Your task to perform on an android device: turn off priority inbox in the gmail app Image 0: 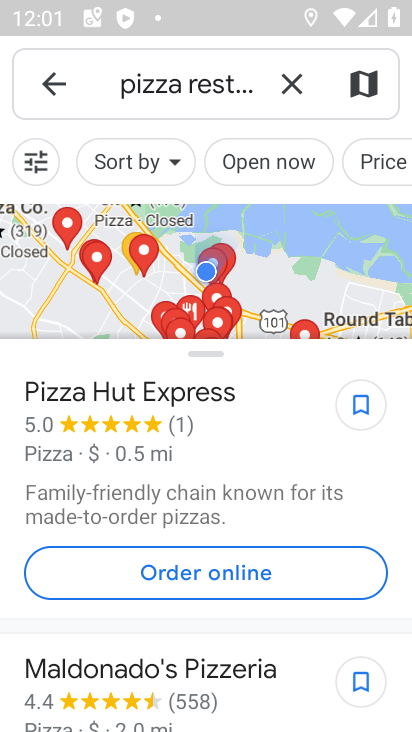
Step 0: press home button
Your task to perform on an android device: turn off priority inbox in the gmail app Image 1: 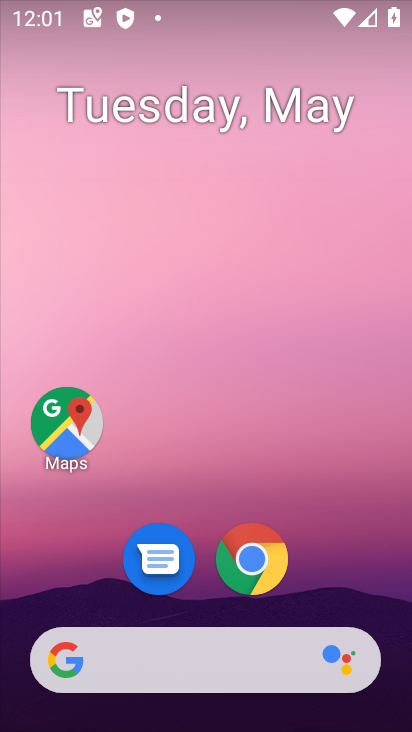
Step 1: drag from (359, 588) to (285, 88)
Your task to perform on an android device: turn off priority inbox in the gmail app Image 2: 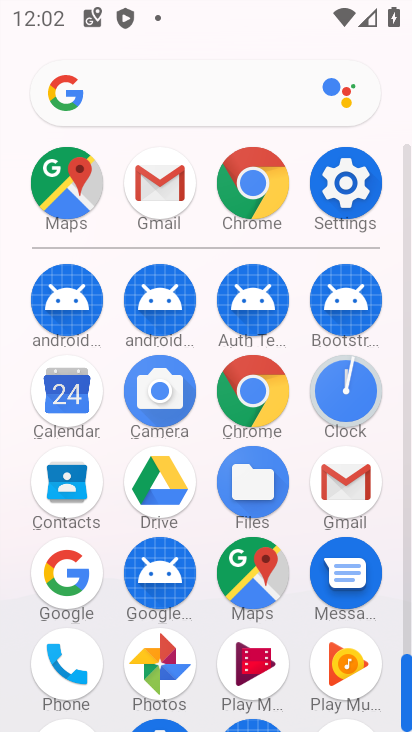
Step 2: click (170, 216)
Your task to perform on an android device: turn off priority inbox in the gmail app Image 3: 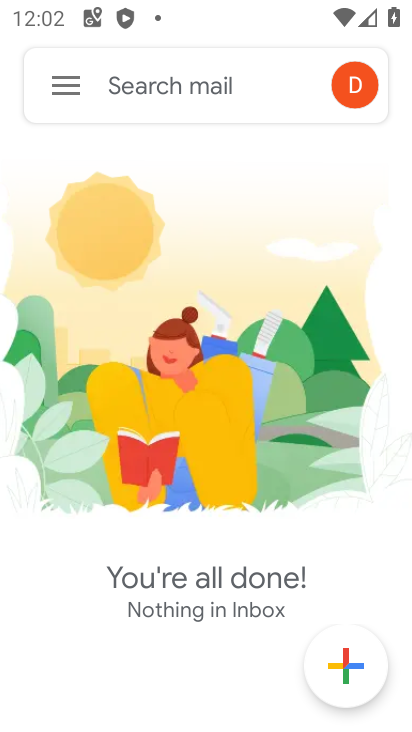
Step 3: click (63, 78)
Your task to perform on an android device: turn off priority inbox in the gmail app Image 4: 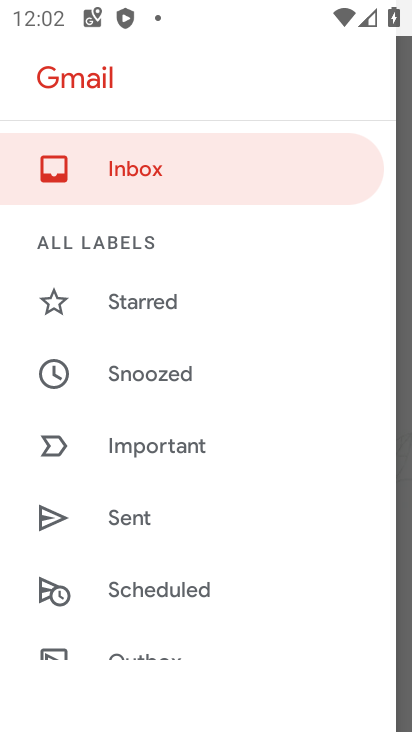
Step 4: drag from (170, 640) to (162, 243)
Your task to perform on an android device: turn off priority inbox in the gmail app Image 5: 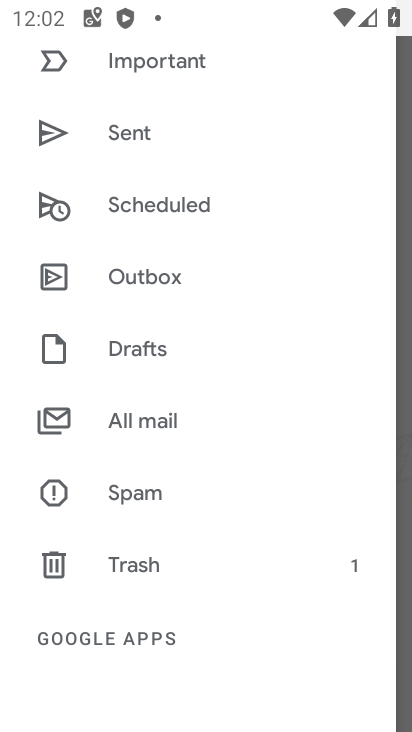
Step 5: drag from (175, 559) to (163, 308)
Your task to perform on an android device: turn off priority inbox in the gmail app Image 6: 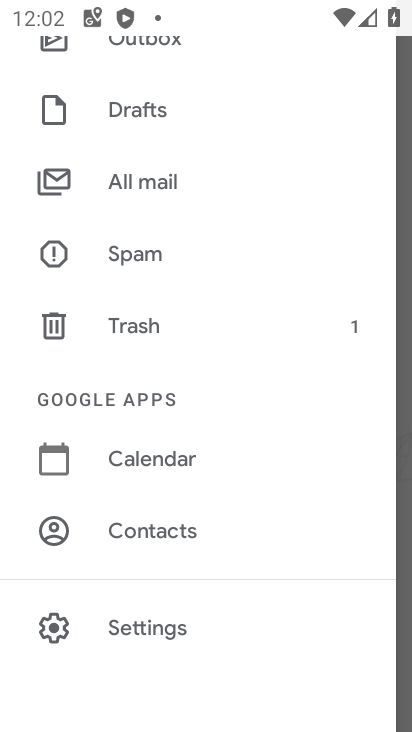
Step 6: click (162, 609)
Your task to perform on an android device: turn off priority inbox in the gmail app Image 7: 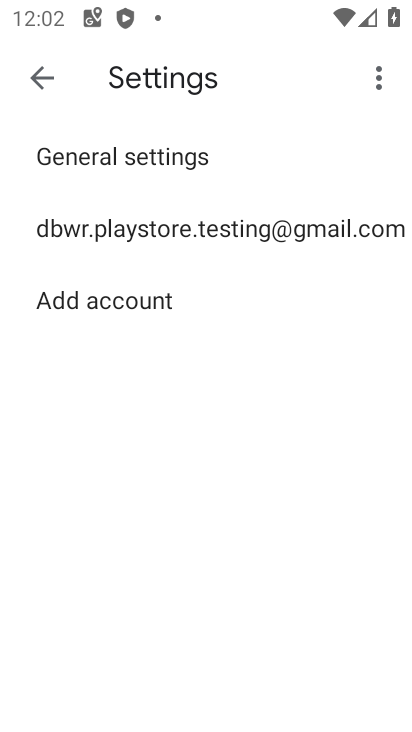
Step 7: click (261, 225)
Your task to perform on an android device: turn off priority inbox in the gmail app Image 8: 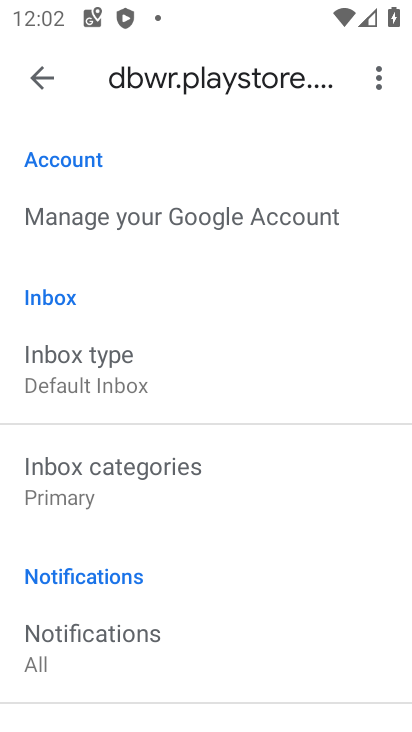
Step 8: click (194, 367)
Your task to perform on an android device: turn off priority inbox in the gmail app Image 9: 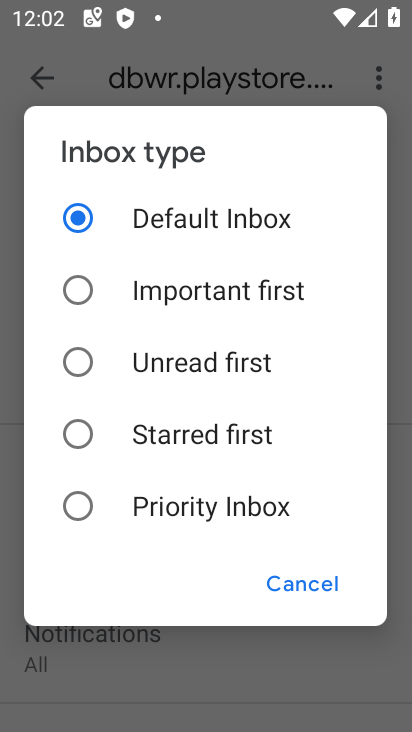
Step 9: click (170, 496)
Your task to perform on an android device: turn off priority inbox in the gmail app Image 10: 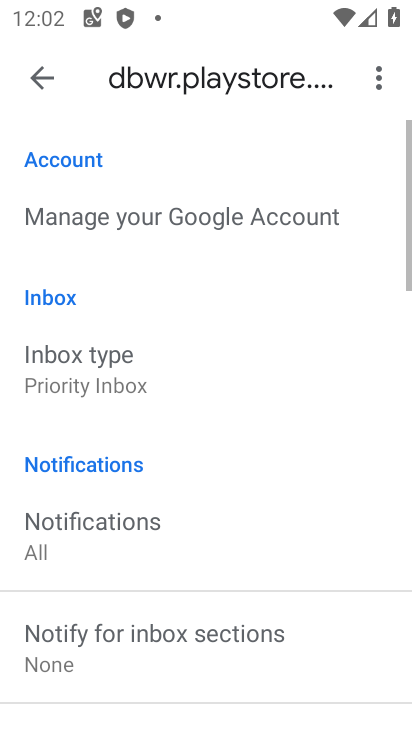
Step 10: task complete